Your task to perform on an android device: stop showing notifications on the lock screen Image 0: 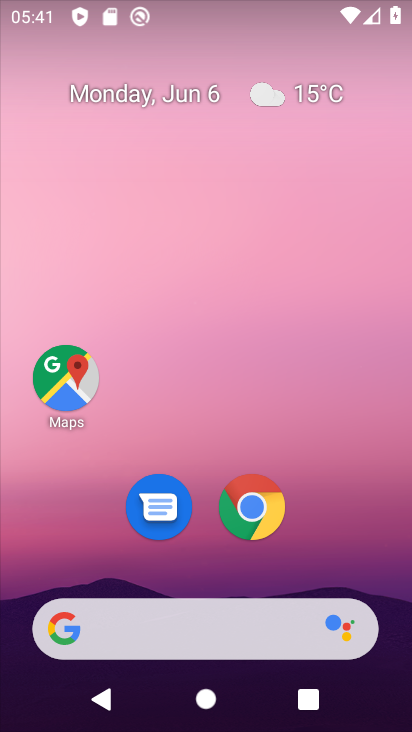
Step 0: drag from (251, 592) to (275, 15)
Your task to perform on an android device: stop showing notifications on the lock screen Image 1: 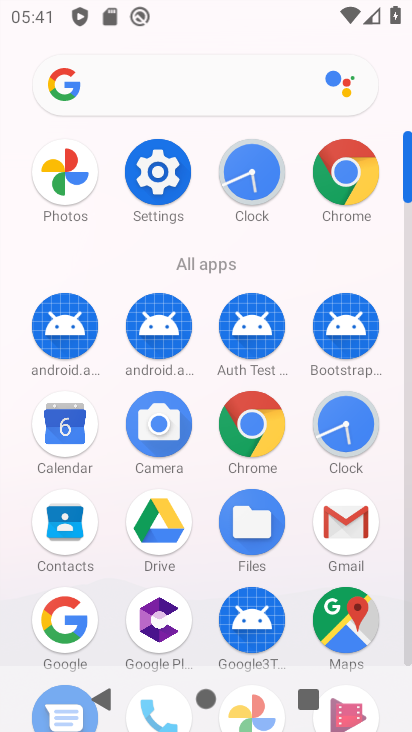
Step 1: click (147, 191)
Your task to perform on an android device: stop showing notifications on the lock screen Image 2: 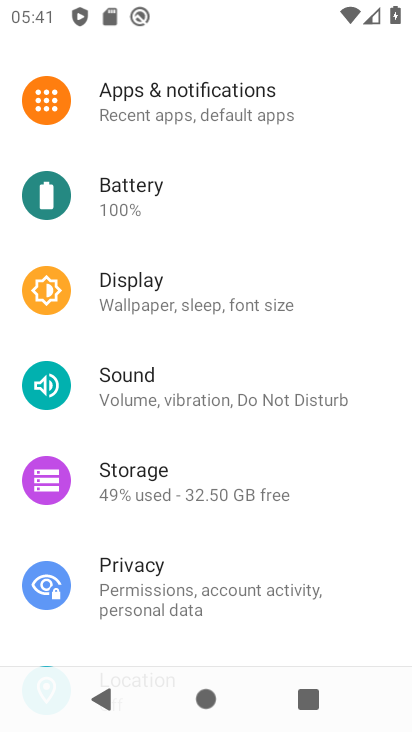
Step 2: click (176, 118)
Your task to perform on an android device: stop showing notifications on the lock screen Image 3: 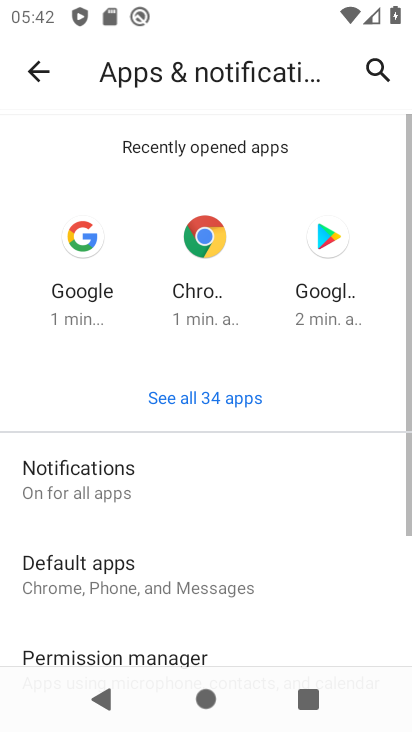
Step 3: click (81, 490)
Your task to perform on an android device: stop showing notifications on the lock screen Image 4: 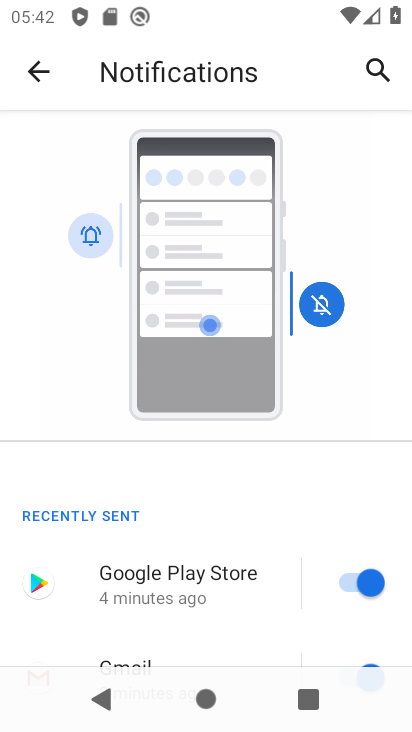
Step 4: drag from (187, 660) to (202, 227)
Your task to perform on an android device: stop showing notifications on the lock screen Image 5: 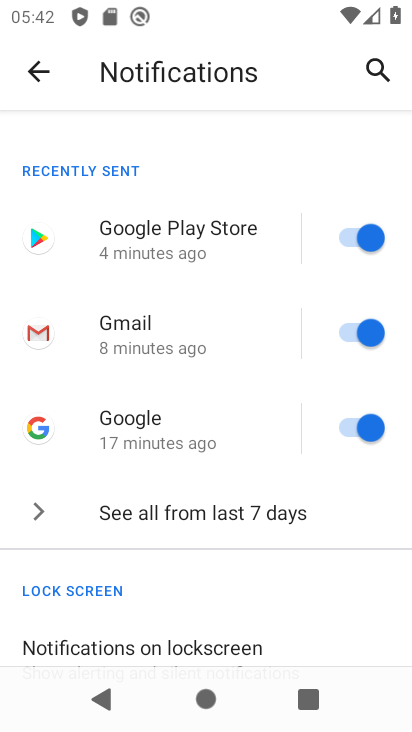
Step 5: click (272, 268)
Your task to perform on an android device: stop showing notifications on the lock screen Image 6: 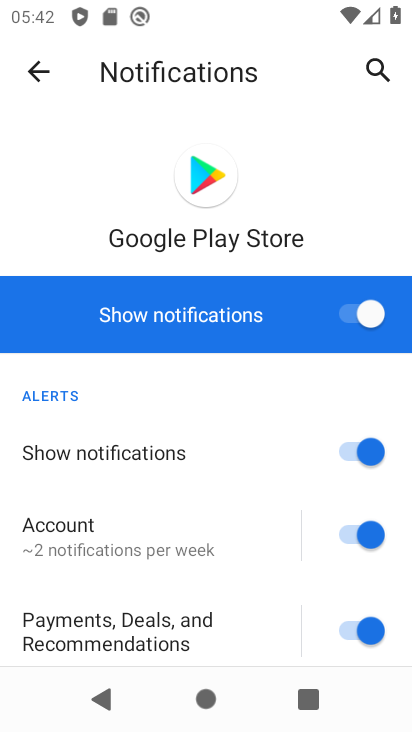
Step 6: click (54, 73)
Your task to perform on an android device: stop showing notifications on the lock screen Image 7: 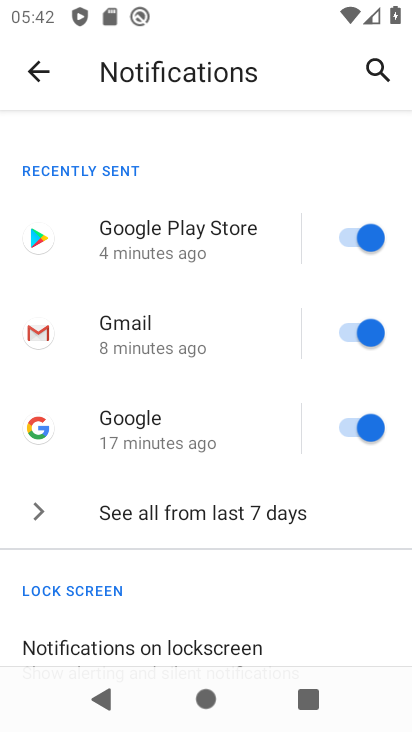
Step 7: click (156, 643)
Your task to perform on an android device: stop showing notifications on the lock screen Image 8: 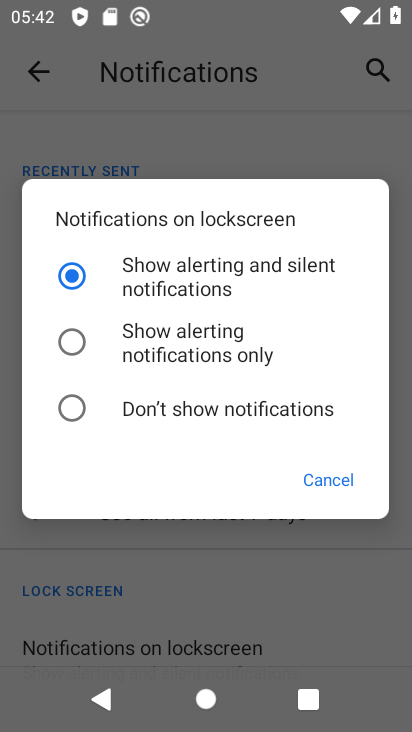
Step 8: click (83, 416)
Your task to perform on an android device: stop showing notifications on the lock screen Image 9: 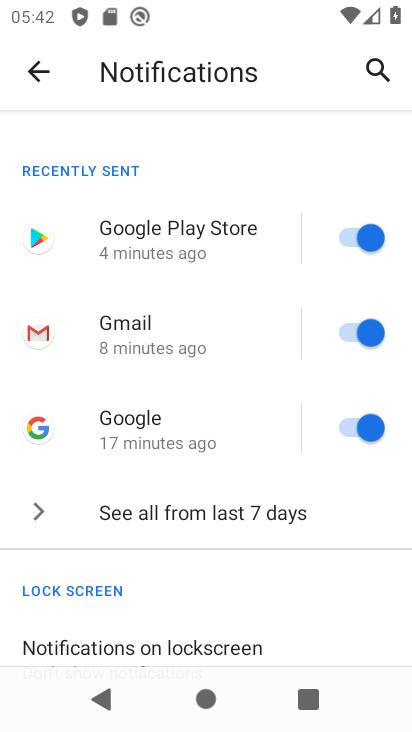
Step 9: task complete